Your task to perform on an android device: find which apps use the phone's location Image 0: 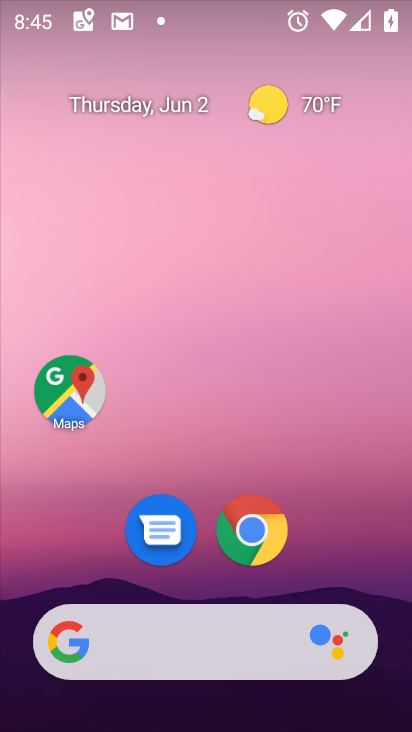
Step 0: drag from (185, 535) to (226, 230)
Your task to perform on an android device: find which apps use the phone's location Image 1: 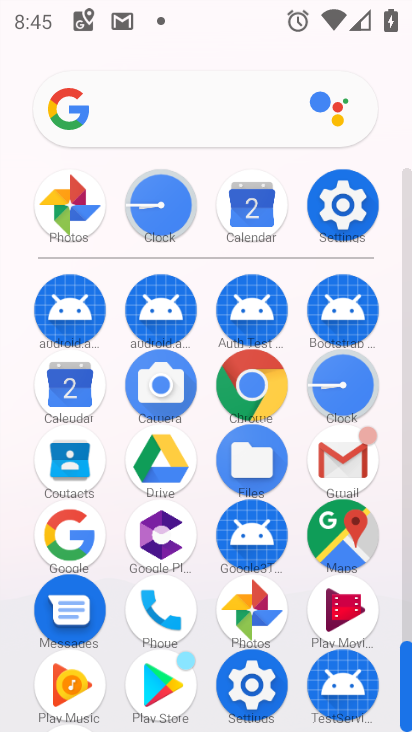
Step 1: click (328, 207)
Your task to perform on an android device: find which apps use the phone's location Image 2: 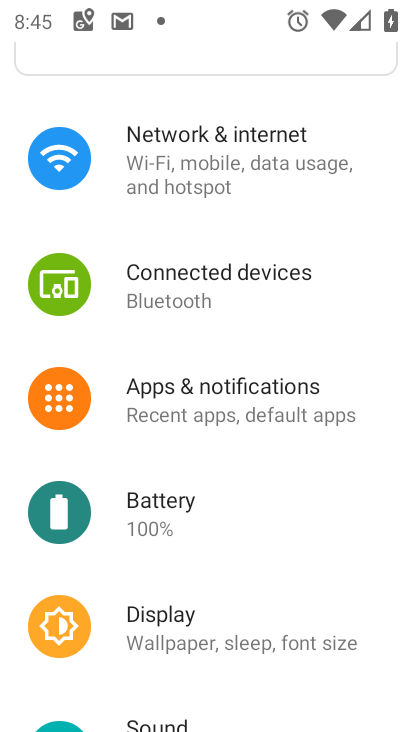
Step 2: drag from (150, 653) to (138, 294)
Your task to perform on an android device: find which apps use the phone's location Image 3: 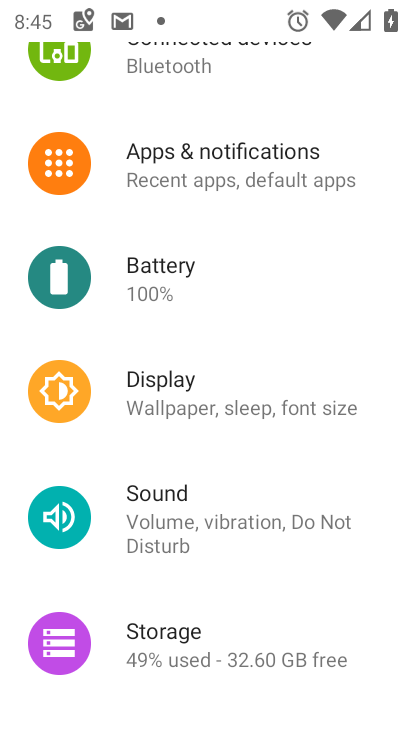
Step 3: drag from (208, 684) to (185, 346)
Your task to perform on an android device: find which apps use the phone's location Image 4: 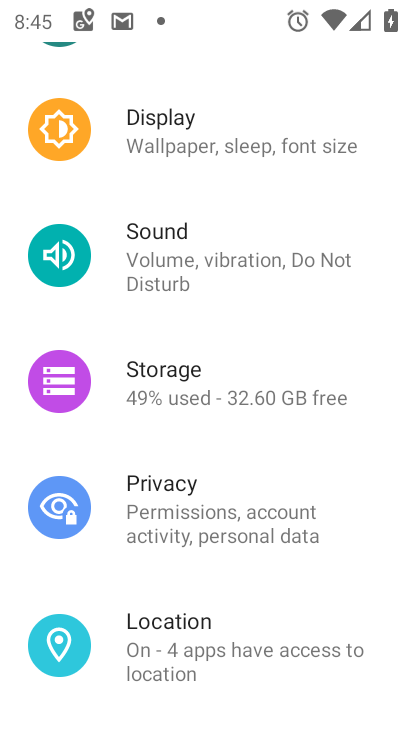
Step 4: click (186, 649)
Your task to perform on an android device: find which apps use the phone's location Image 5: 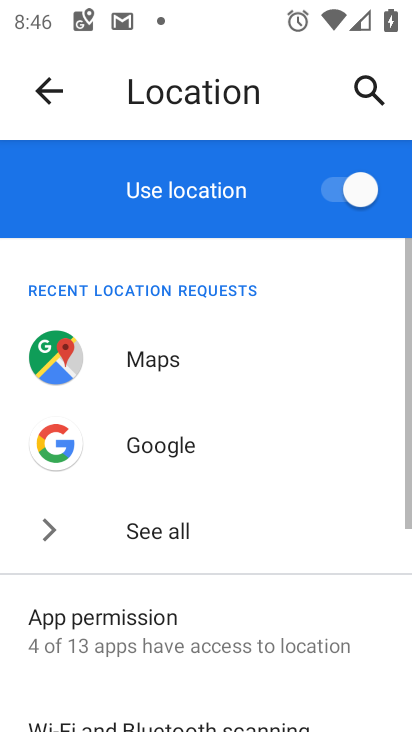
Step 5: click (137, 642)
Your task to perform on an android device: find which apps use the phone's location Image 6: 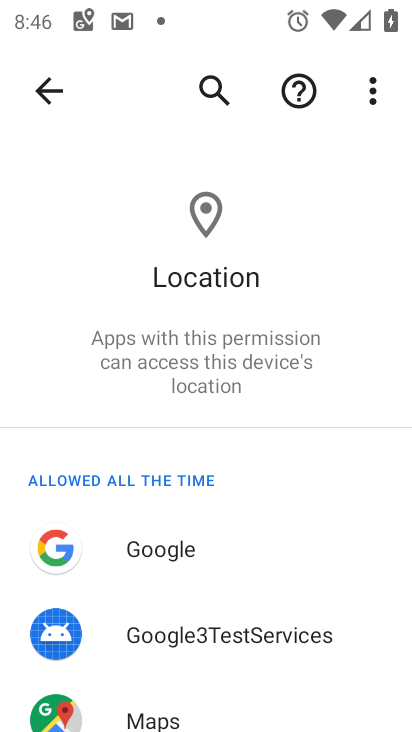
Step 6: task complete